Your task to perform on an android device: Search for lenovo thinkpad on walmart, select the first entry, add it to the cart, then select checkout. Image 0: 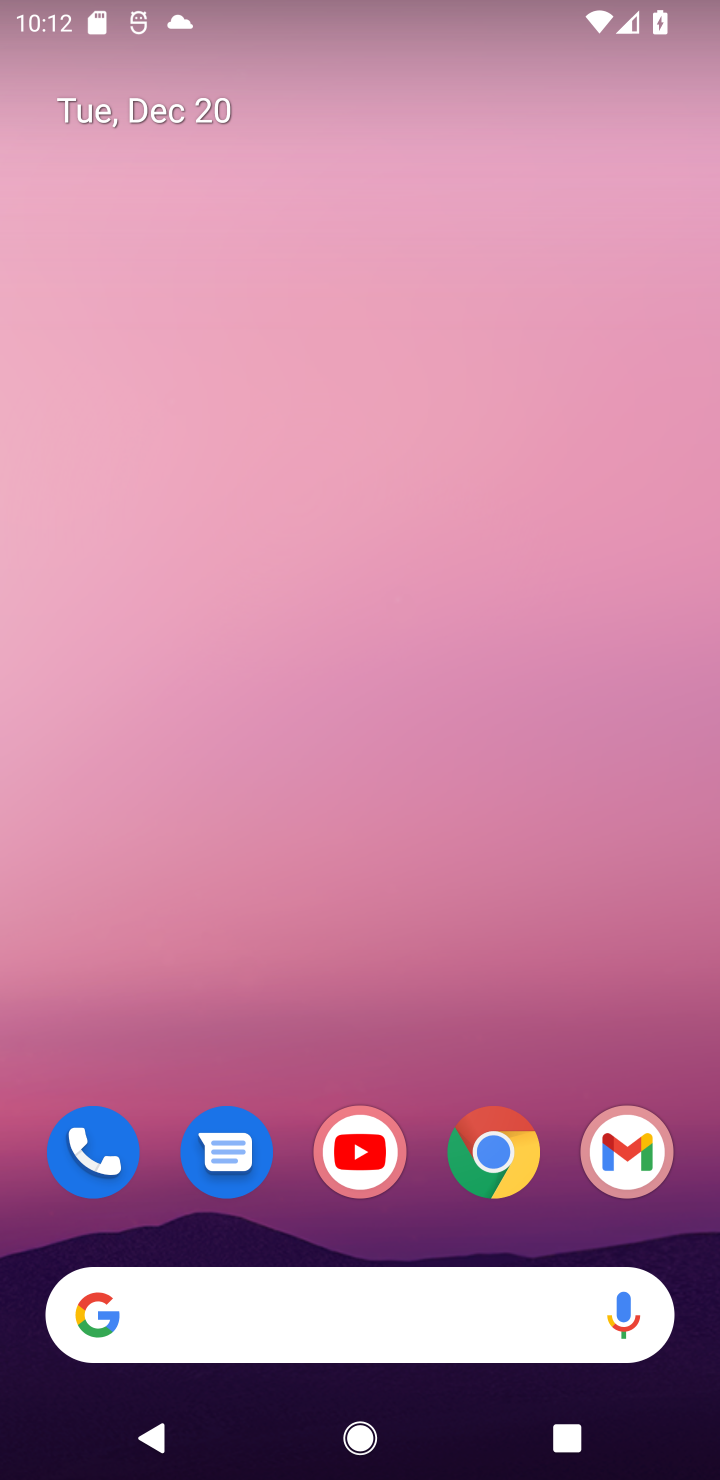
Step 0: click (461, 1163)
Your task to perform on an android device: Search for lenovo thinkpad on walmart, select the first entry, add it to the cart, then select checkout. Image 1: 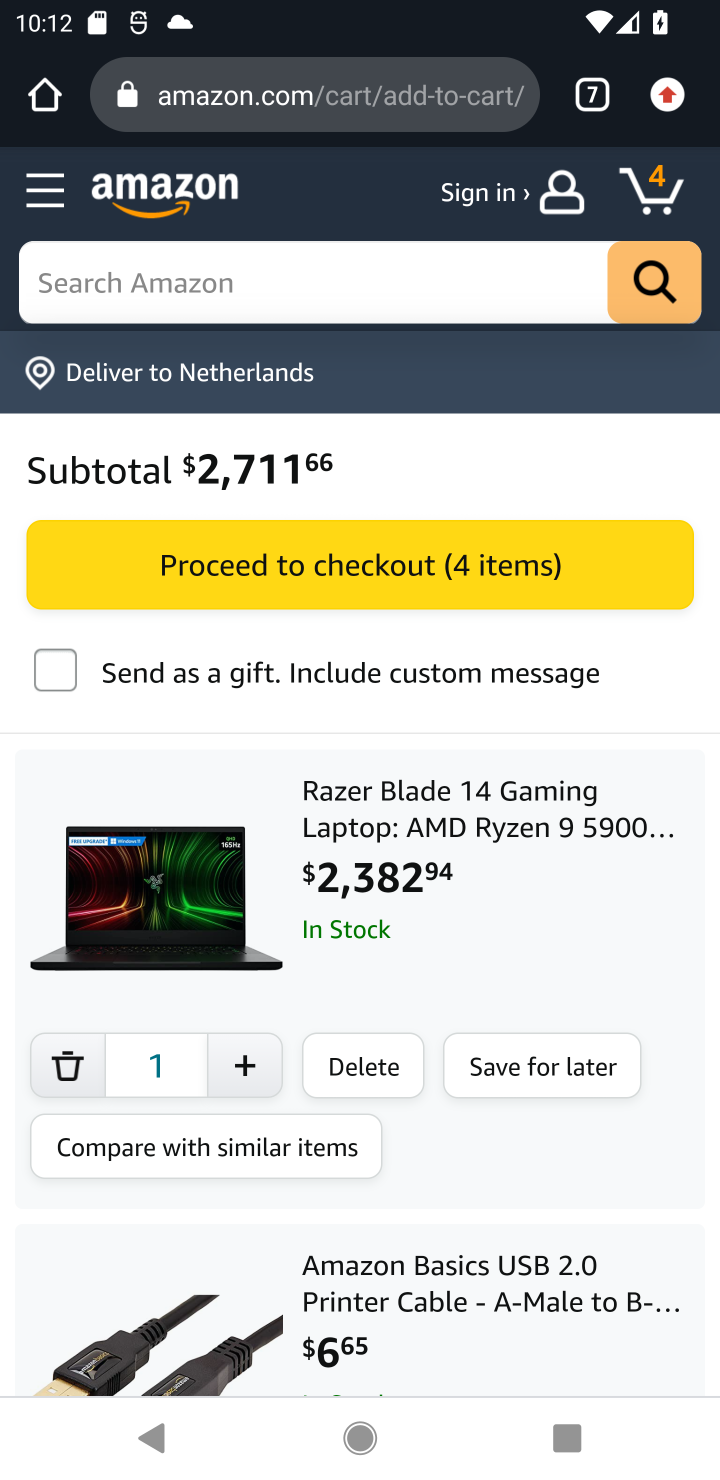
Step 1: click (599, 97)
Your task to perform on an android device: Search for lenovo thinkpad on walmart, select the first entry, add it to the cart, then select checkout. Image 2: 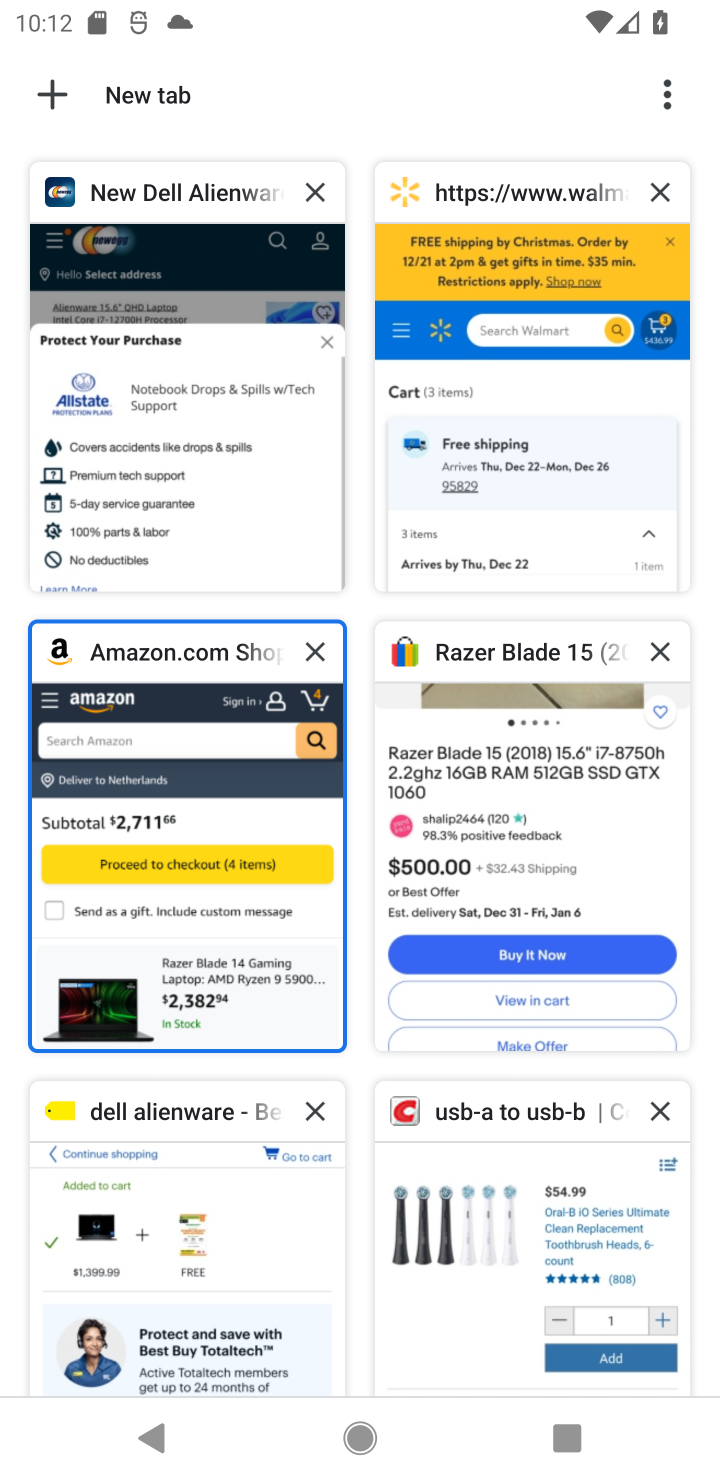
Step 2: click (419, 400)
Your task to perform on an android device: Search for lenovo thinkpad on walmart, select the first entry, add it to the cart, then select checkout. Image 3: 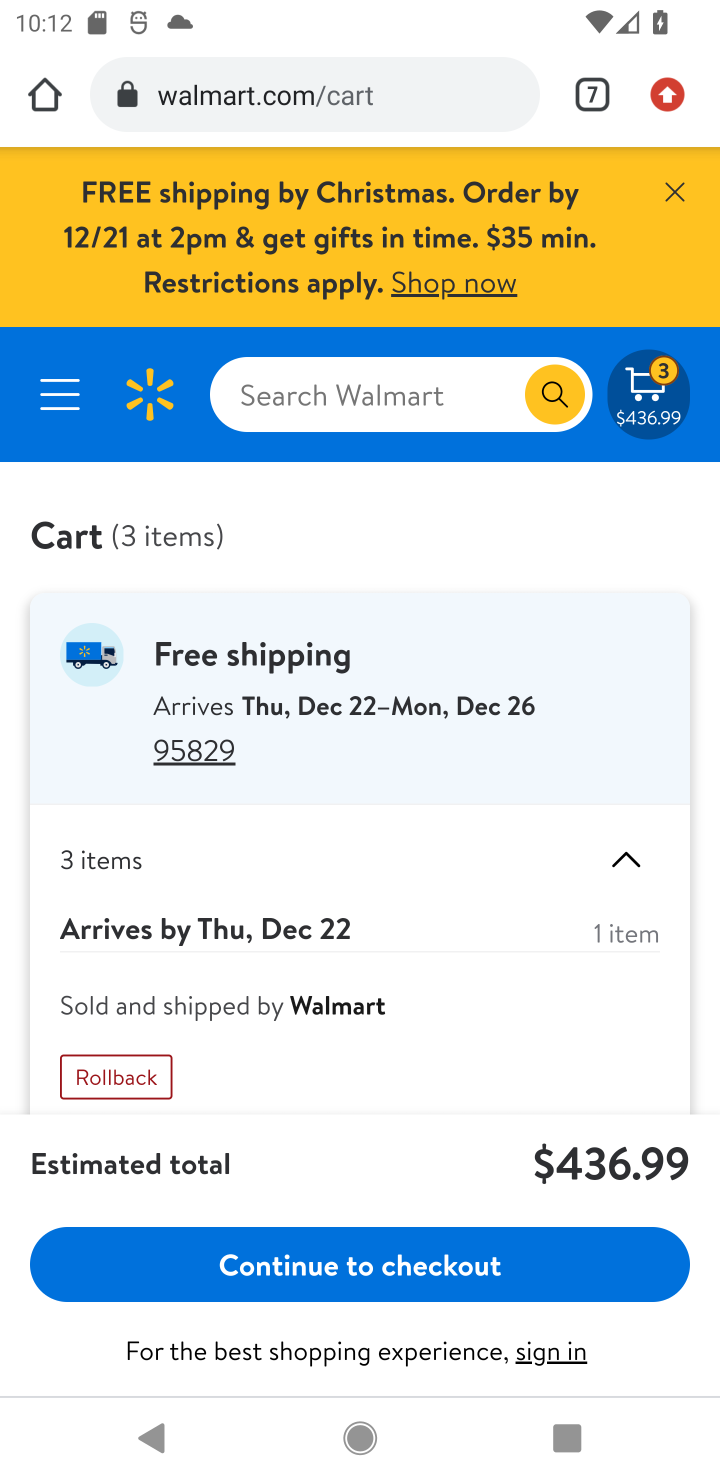
Step 3: click (348, 381)
Your task to perform on an android device: Search for lenovo thinkpad on walmart, select the first entry, add it to the cart, then select checkout. Image 4: 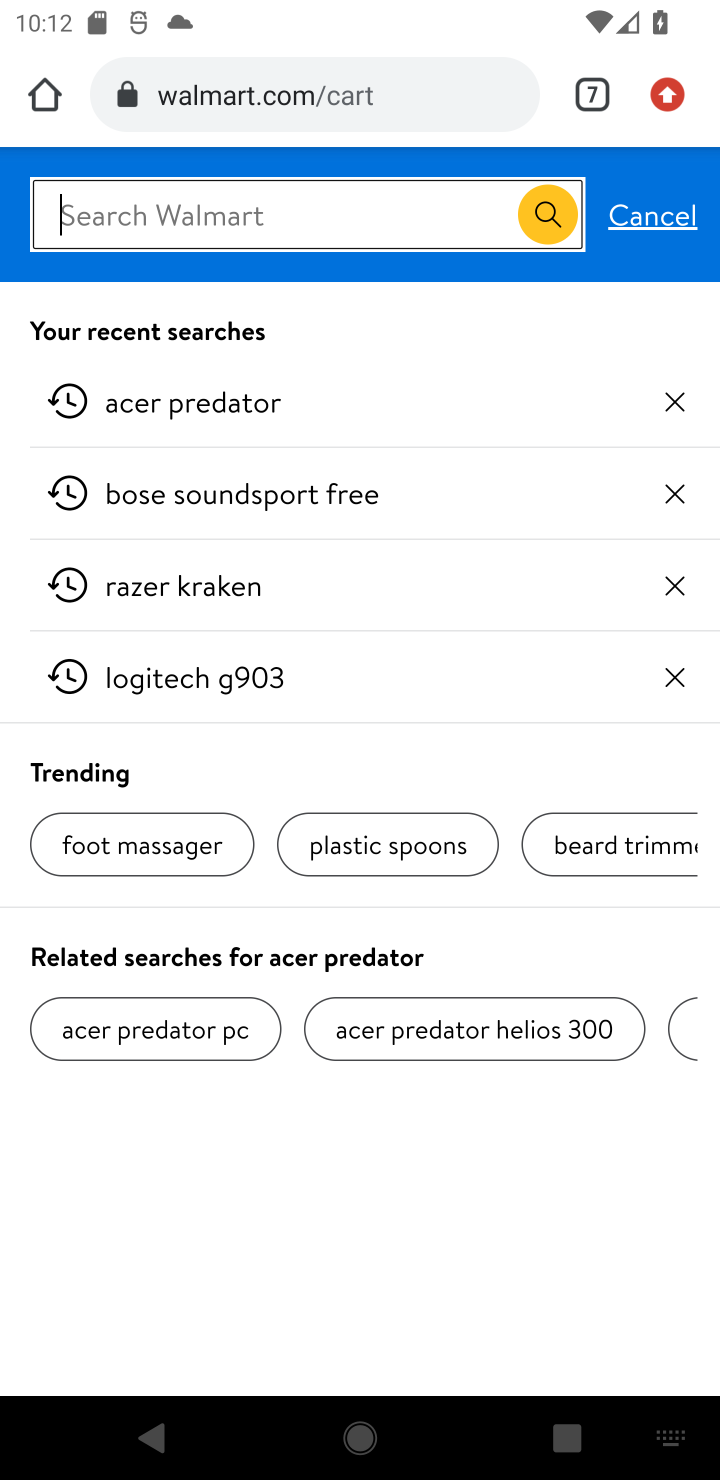
Step 4: type "lenovo thinkpad"
Your task to perform on an android device: Search for lenovo thinkpad on walmart, select the first entry, add it to the cart, then select checkout. Image 5: 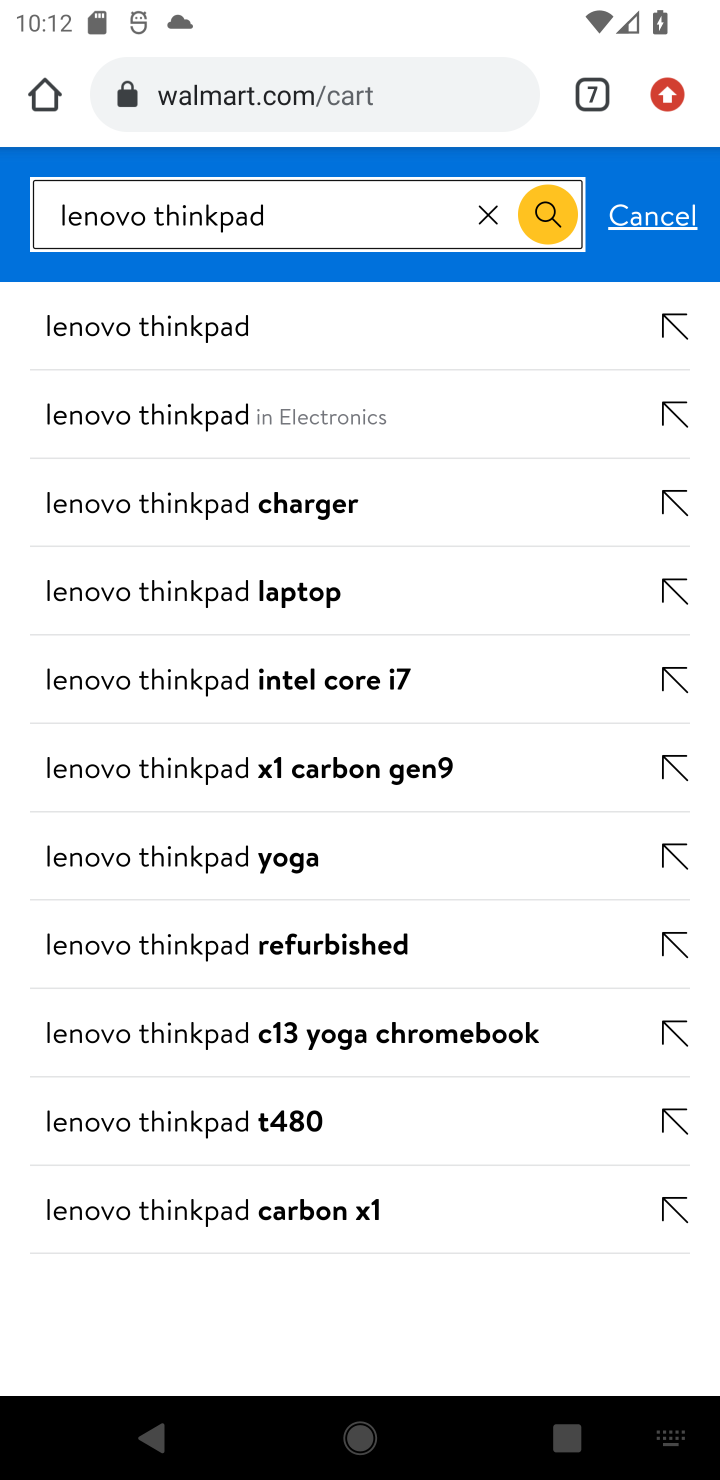
Step 5: click (200, 407)
Your task to perform on an android device: Search for lenovo thinkpad on walmart, select the first entry, add it to the cart, then select checkout. Image 6: 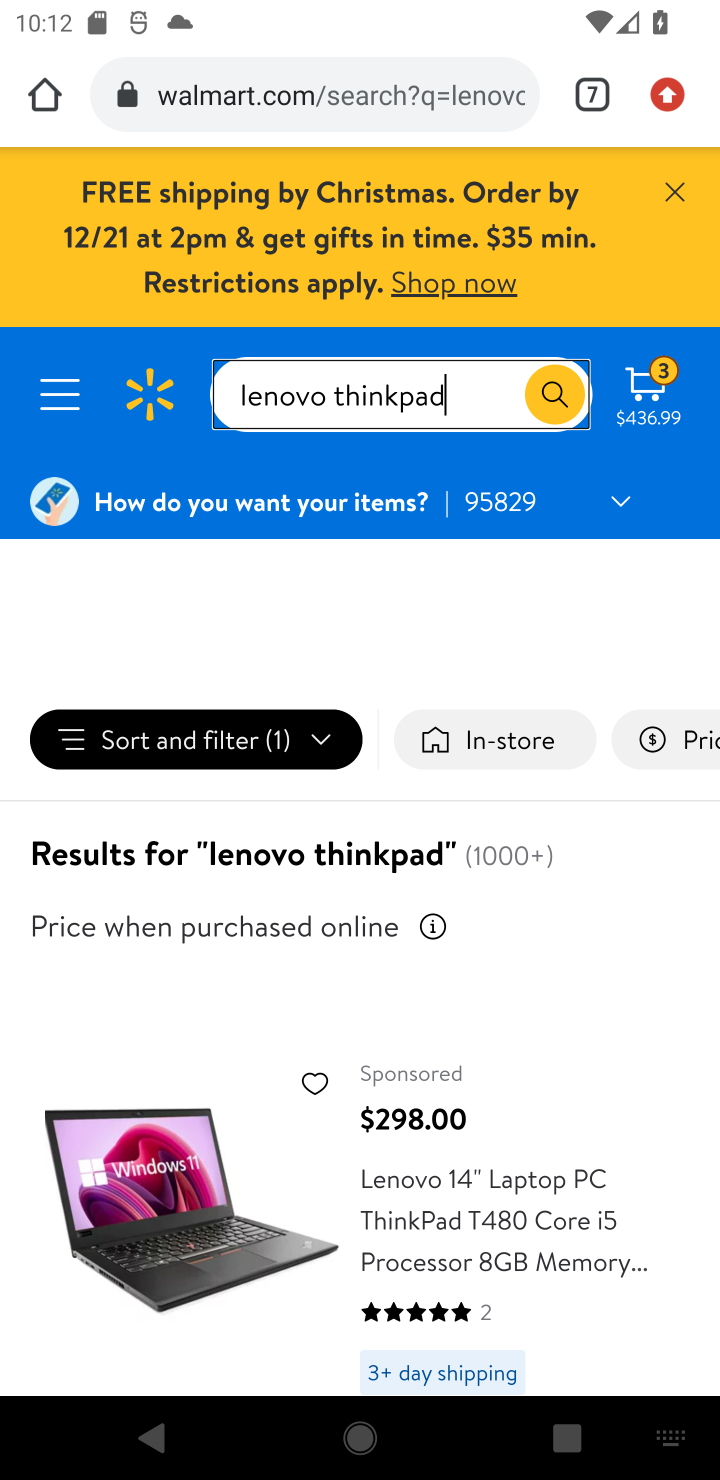
Step 6: drag from (510, 1125) to (572, 458)
Your task to perform on an android device: Search for lenovo thinkpad on walmart, select the first entry, add it to the cart, then select checkout. Image 7: 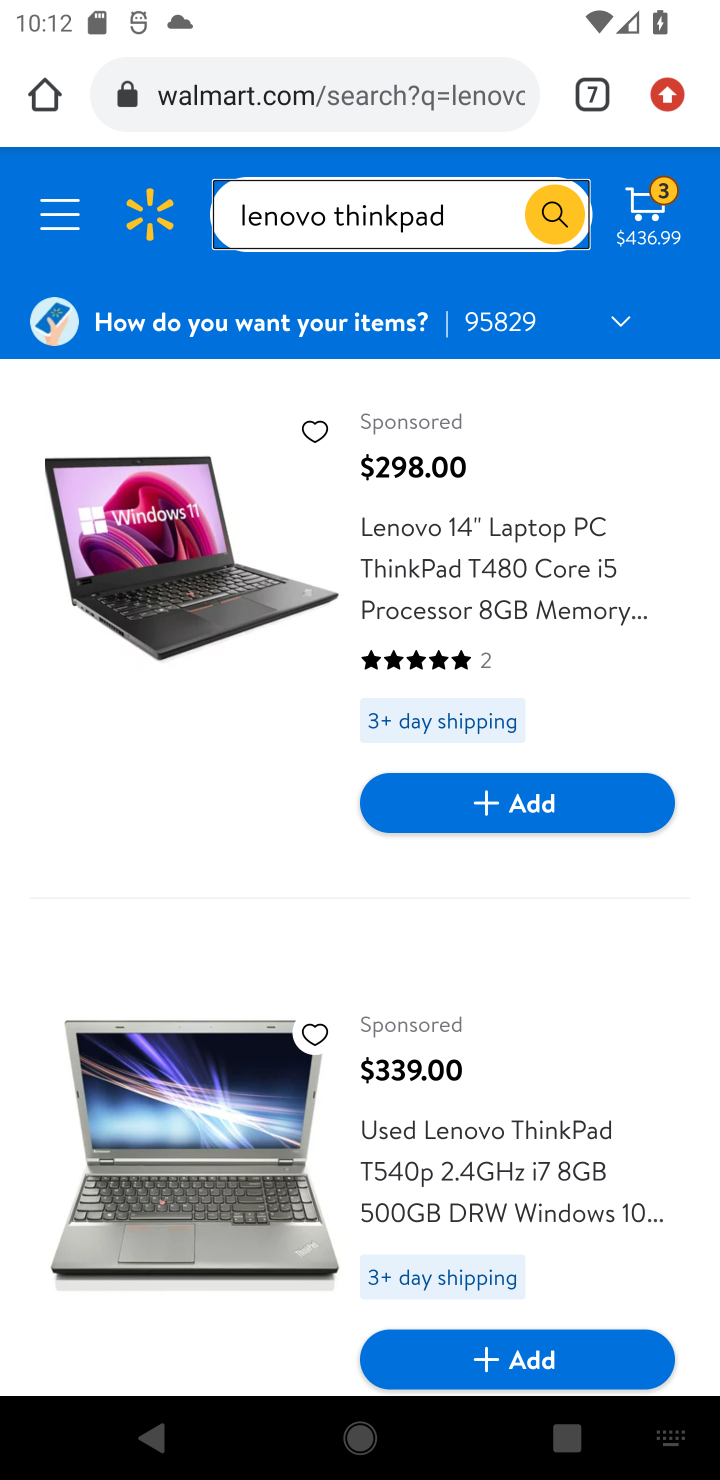
Step 7: drag from (540, 1251) to (588, 790)
Your task to perform on an android device: Search for lenovo thinkpad on walmart, select the first entry, add it to the cart, then select checkout. Image 8: 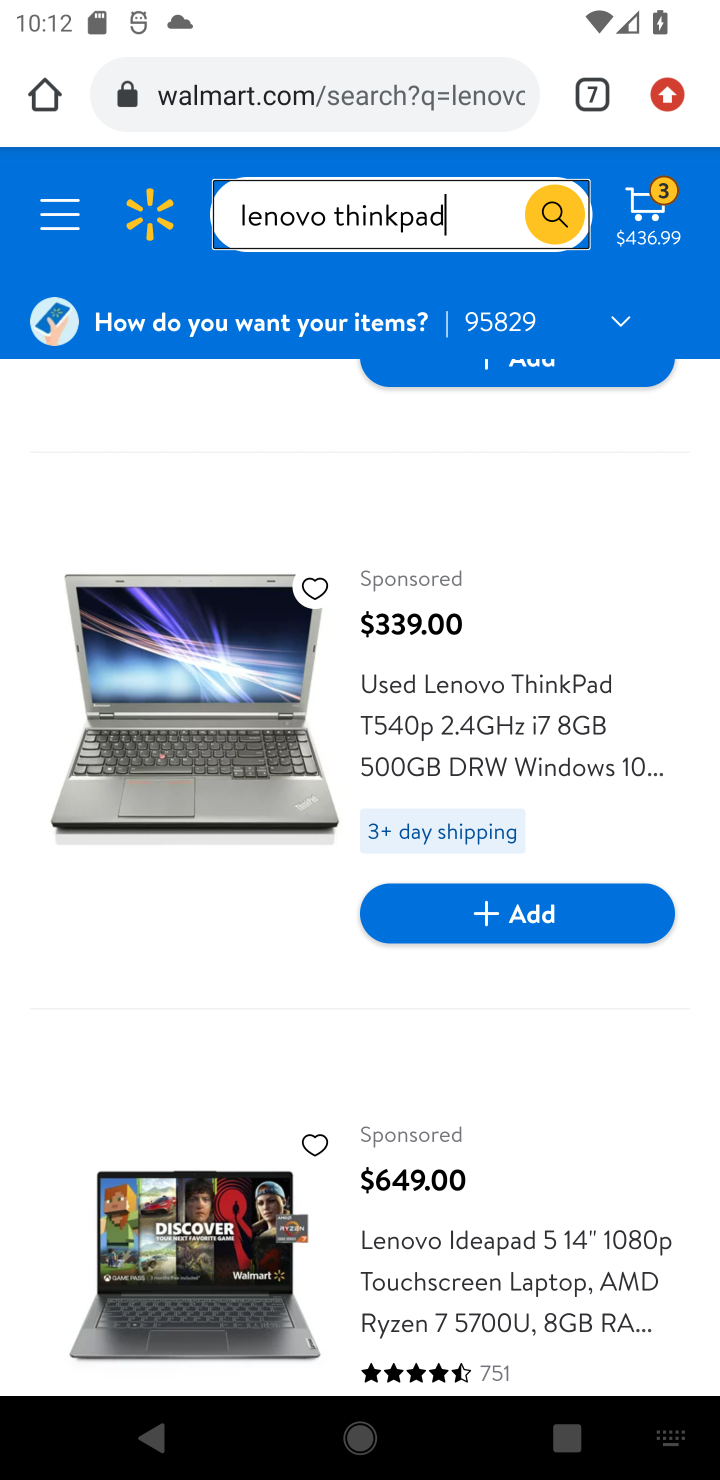
Step 8: click (540, 921)
Your task to perform on an android device: Search for lenovo thinkpad on walmart, select the first entry, add it to the cart, then select checkout. Image 9: 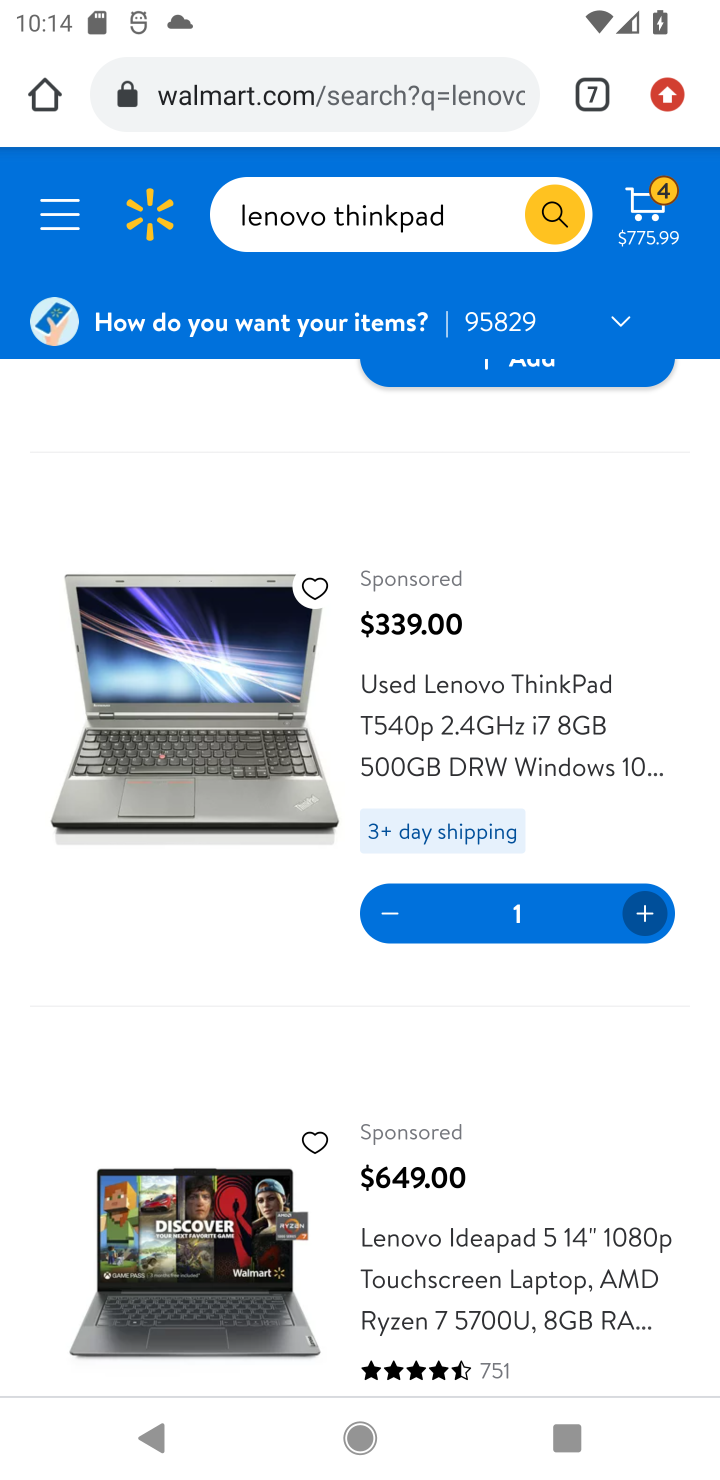
Step 9: task complete